Your task to perform on an android device: Show me popular games on the Play Store Image 0: 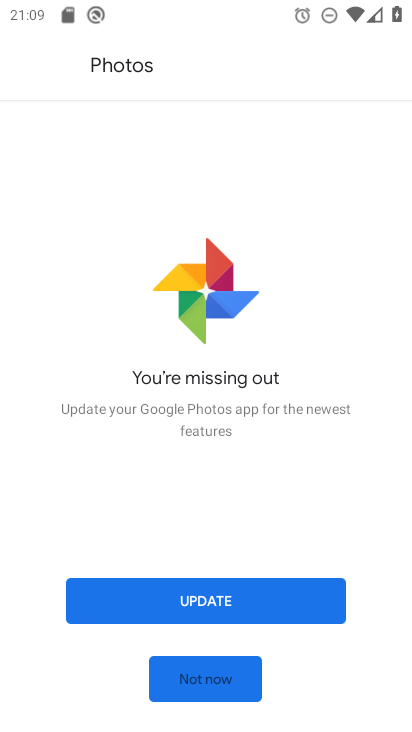
Step 0: press home button
Your task to perform on an android device: Show me popular games on the Play Store Image 1: 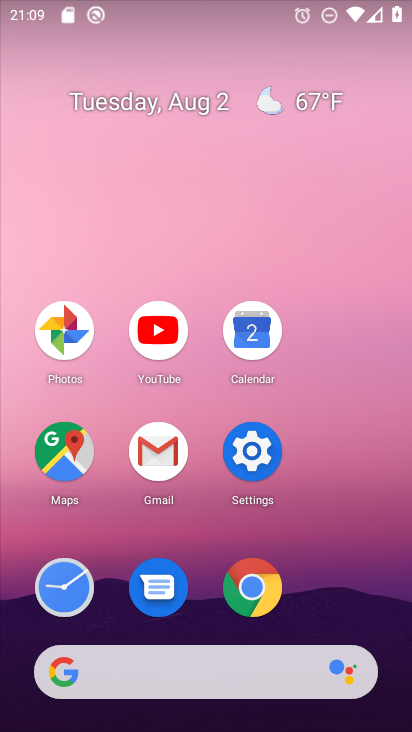
Step 1: click (256, 442)
Your task to perform on an android device: Show me popular games on the Play Store Image 2: 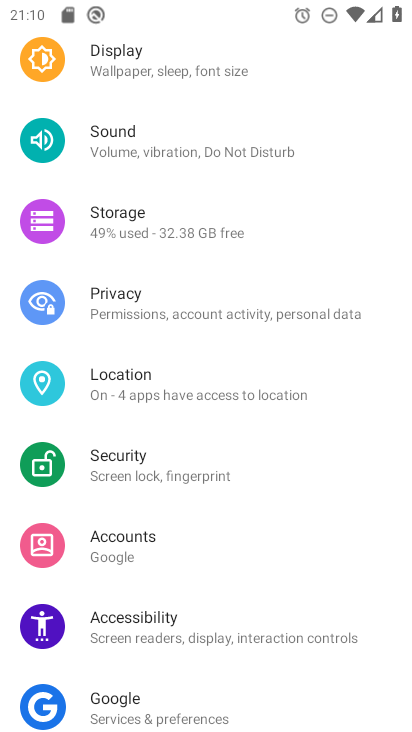
Step 2: press home button
Your task to perform on an android device: Show me popular games on the Play Store Image 3: 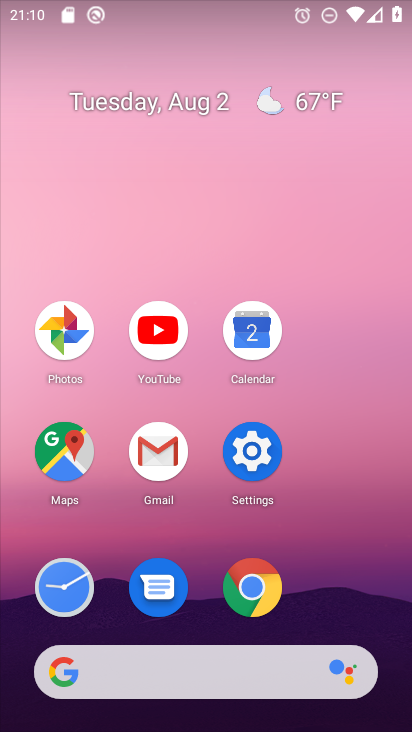
Step 3: drag from (311, 544) to (260, 24)
Your task to perform on an android device: Show me popular games on the Play Store Image 4: 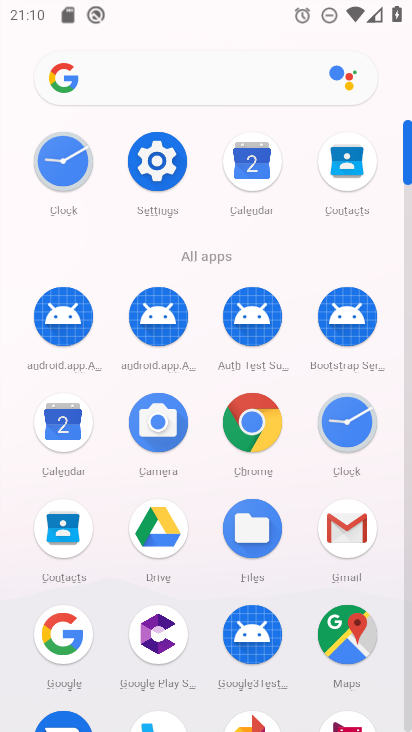
Step 4: drag from (185, 599) to (151, 86)
Your task to perform on an android device: Show me popular games on the Play Store Image 5: 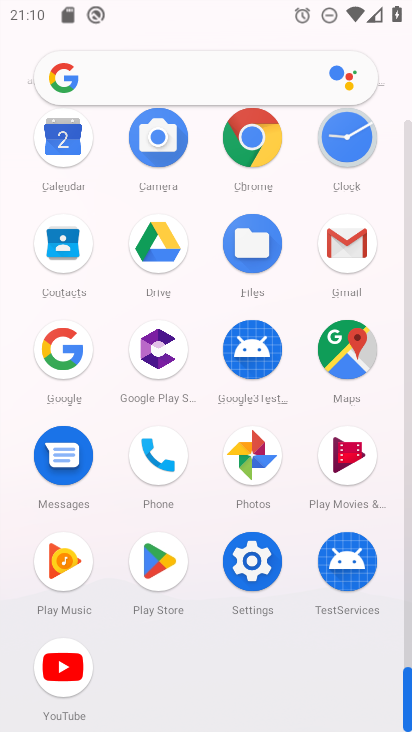
Step 5: click (157, 557)
Your task to perform on an android device: Show me popular games on the Play Store Image 6: 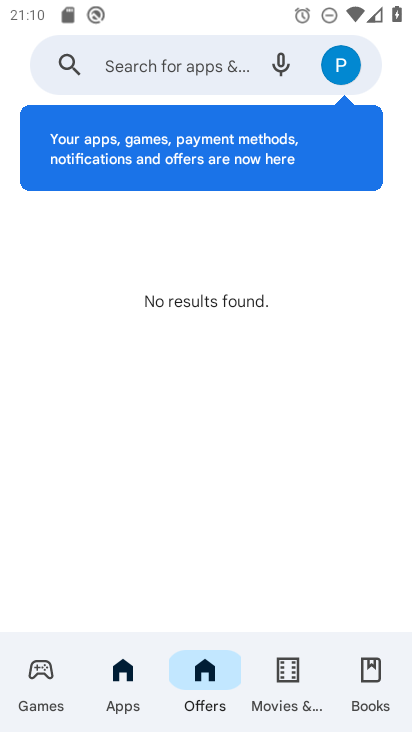
Step 6: click (30, 682)
Your task to perform on an android device: Show me popular games on the Play Store Image 7: 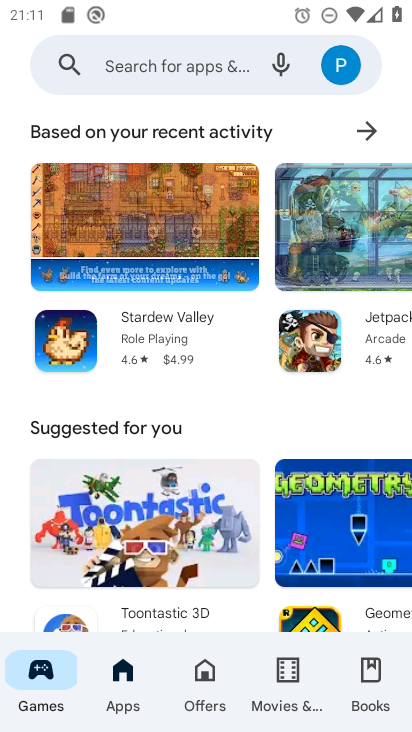
Step 7: task complete